Your task to perform on an android device: turn off location Image 0: 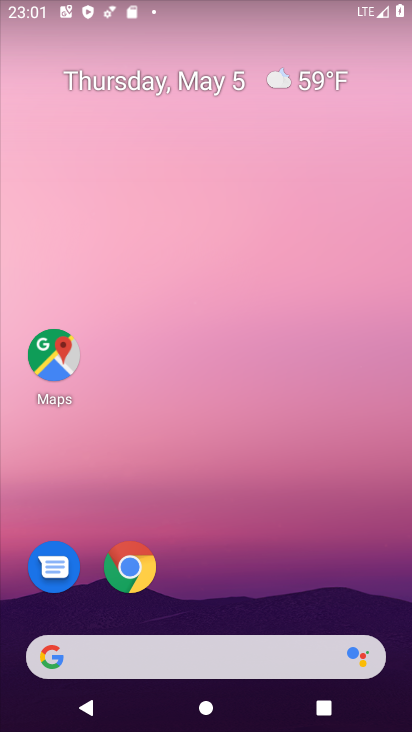
Step 0: drag from (234, 509) to (307, 83)
Your task to perform on an android device: turn off location Image 1: 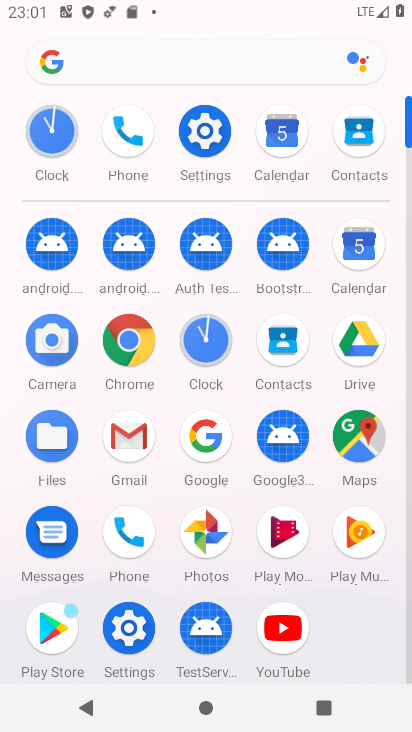
Step 1: click (193, 122)
Your task to perform on an android device: turn off location Image 2: 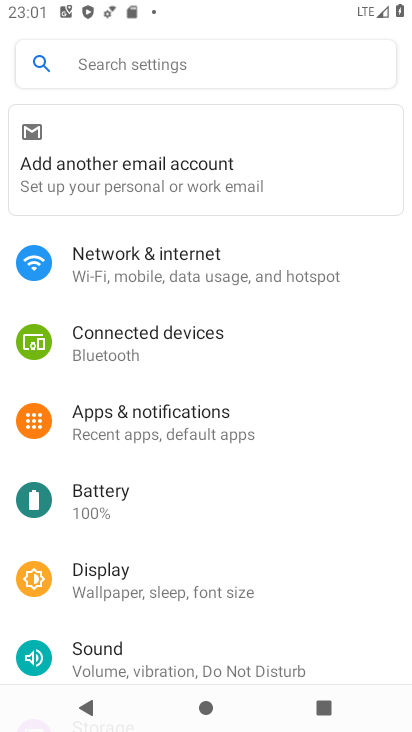
Step 2: drag from (173, 583) to (288, 128)
Your task to perform on an android device: turn off location Image 3: 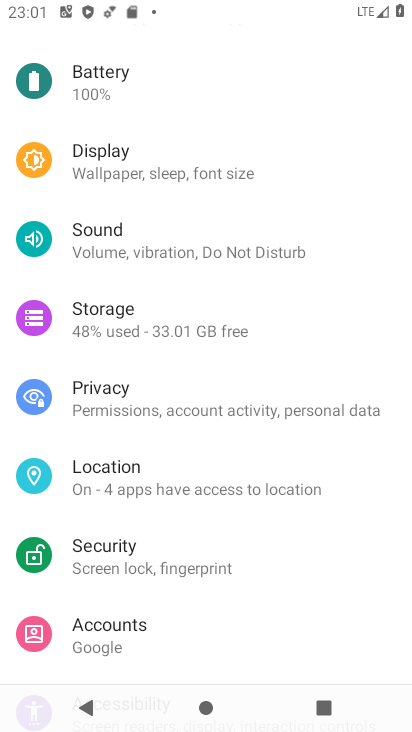
Step 3: click (113, 488)
Your task to perform on an android device: turn off location Image 4: 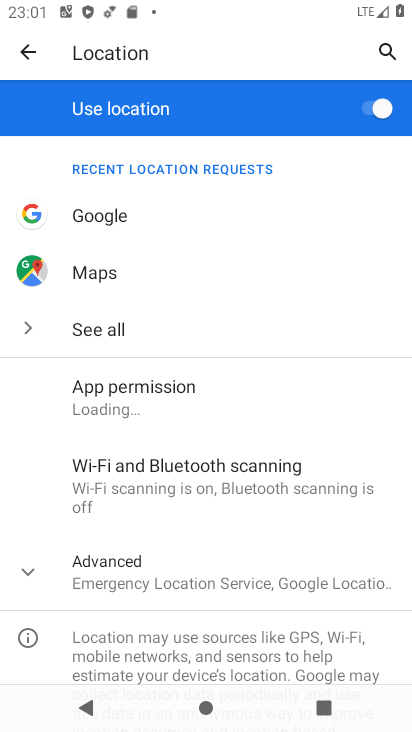
Step 4: click (376, 113)
Your task to perform on an android device: turn off location Image 5: 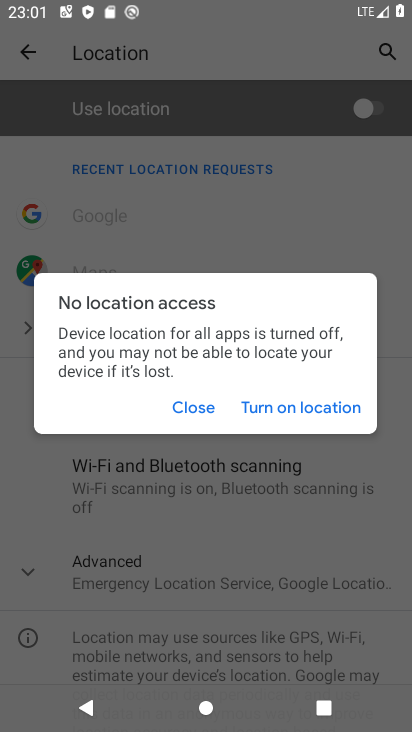
Step 5: task complete